Your task to perform on an android device: Open Yahoo.com Image 0: 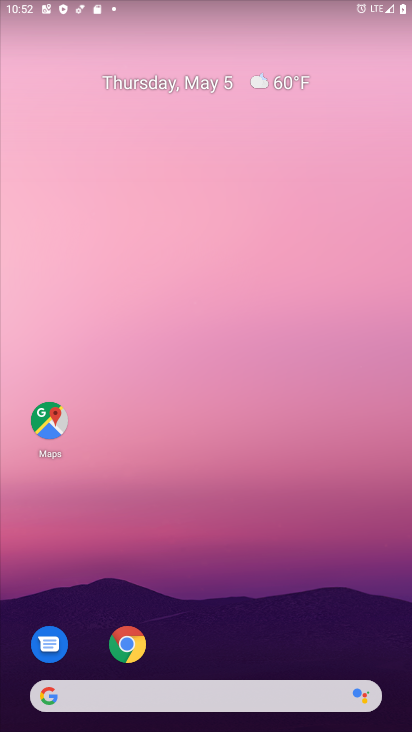
Step 0: click (113, 654)
Your task to perform on an android device: Open Yahoo.com Image 1: 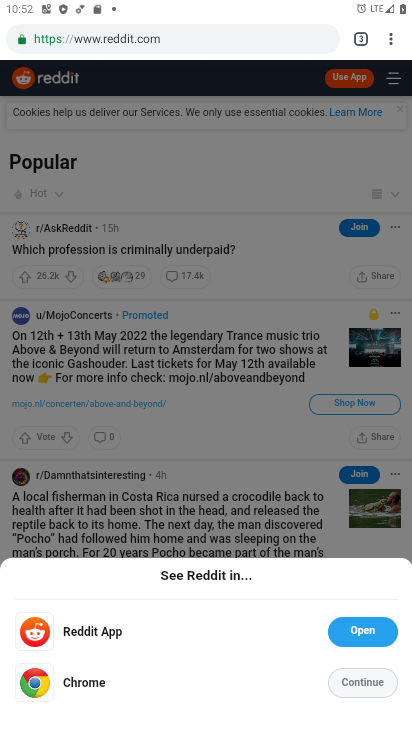
Step 1: click (181, 42)
Your task to perform on an android device: Open Yahoo.com Image 2: 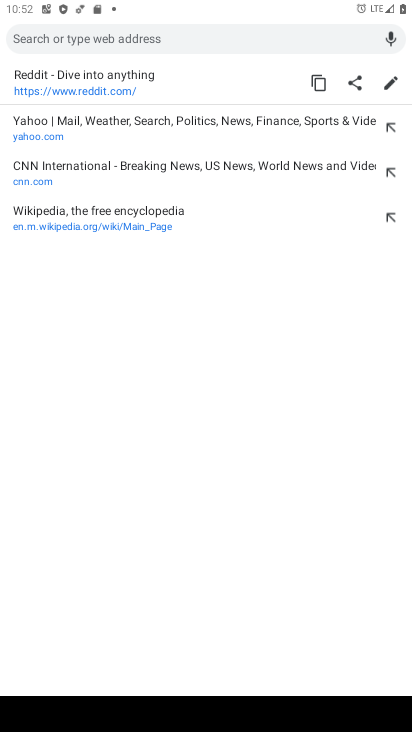
Step 2: click (144, 127)
Your task to perform on an android device: Open Yahoo.com Image 3: 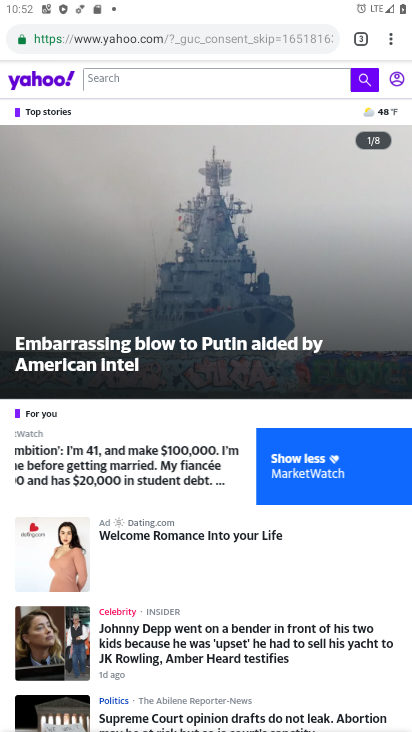
Step 3: task complete